Your task to perform on an android device: Empty the shopping cart on ebay.com. Search for razer deathadder on ebay.com, select the first entry, add it to the cart, then select checkout. Image 0: 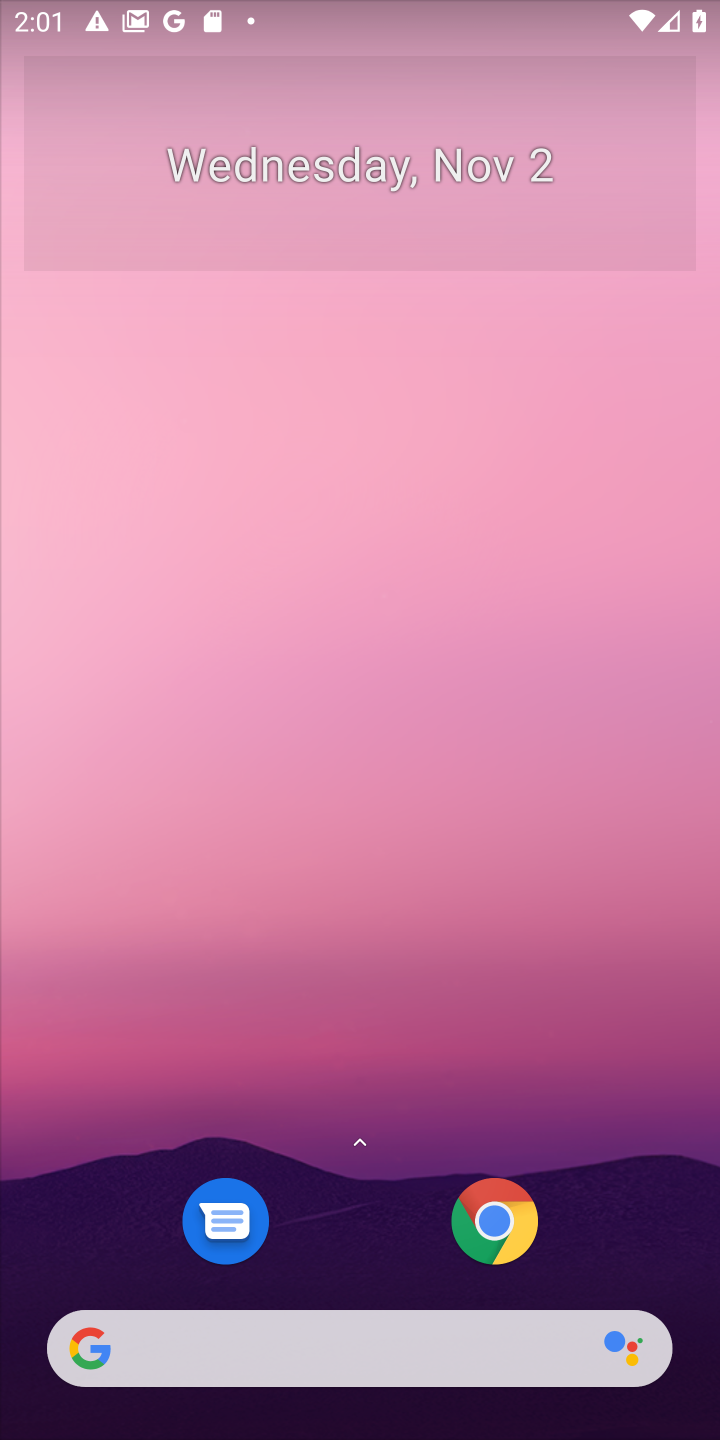
Step 0: click (309, 1355)
Your task to perform on an android device: Empty the shopping cart on ebay.com. Search for razer deathadder on ebay.com, select the first entry, add it to the cart, then select checkout. Image 1: 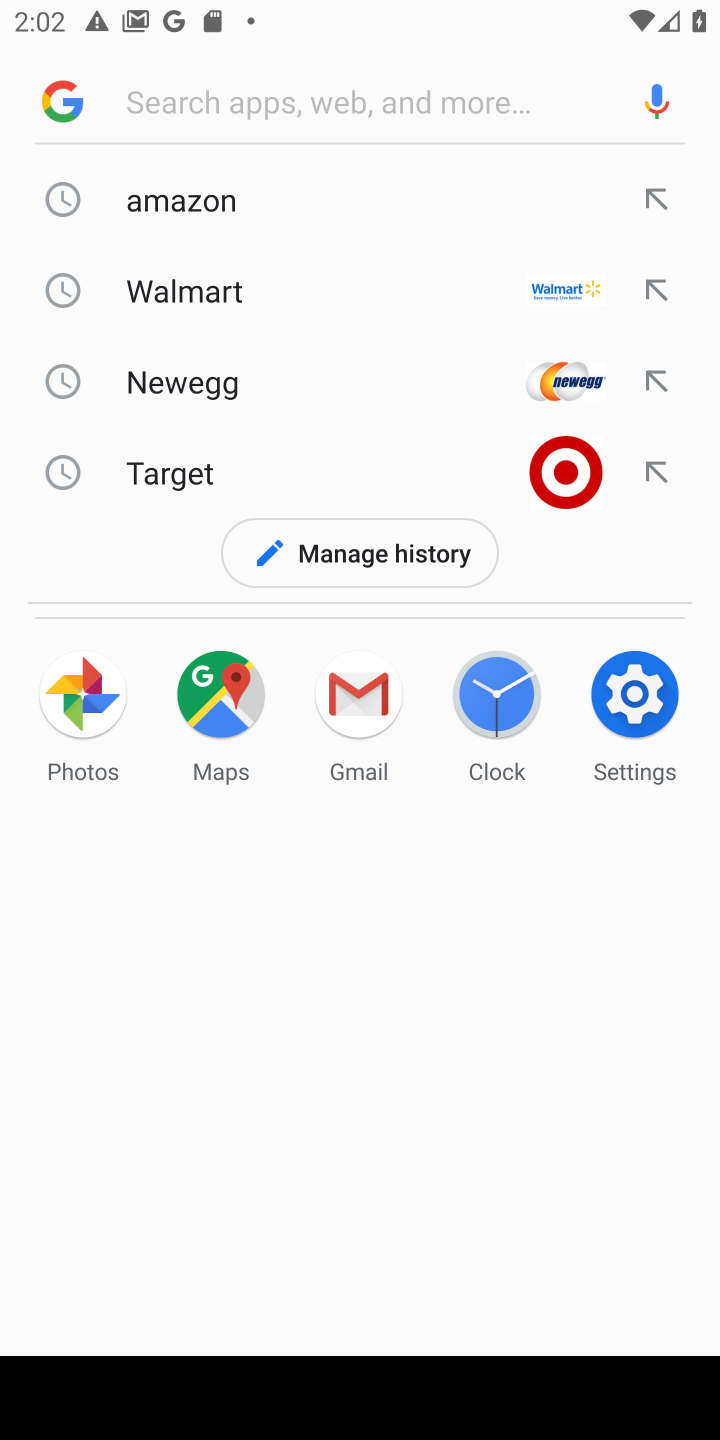
Step 1: type "ebay.com"
Your task to perform on an android device: Empty the shopping cart on ebay.com. Search for razer deathadder on ebay.com, select the first entry, add it to the cart, then select checkout. Image 2: 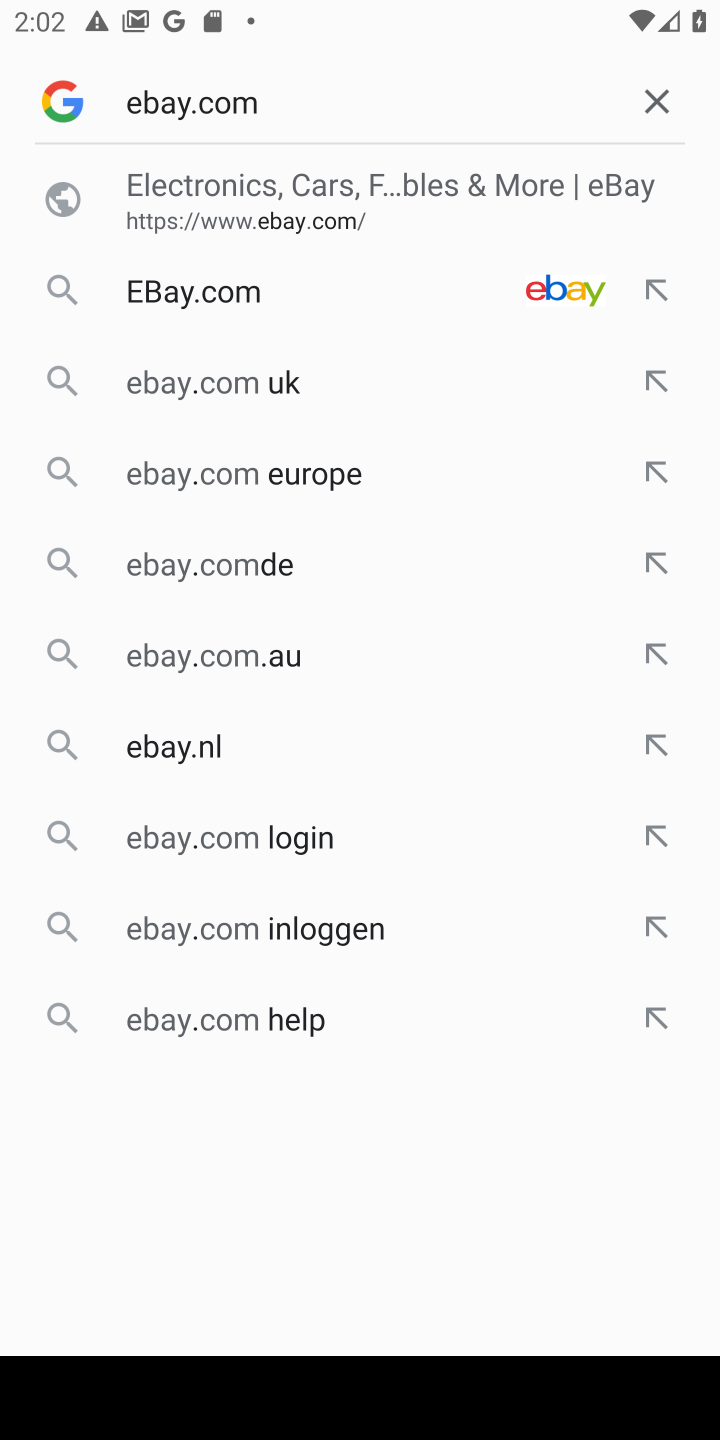
Step 2: click (361, 219)
Your task to perform on an android device: Empty the shopping cart on ebay.com. Search for razer deathadder on ebay.com, select the first entry, add it to the cart, then select checkout. Image 3: 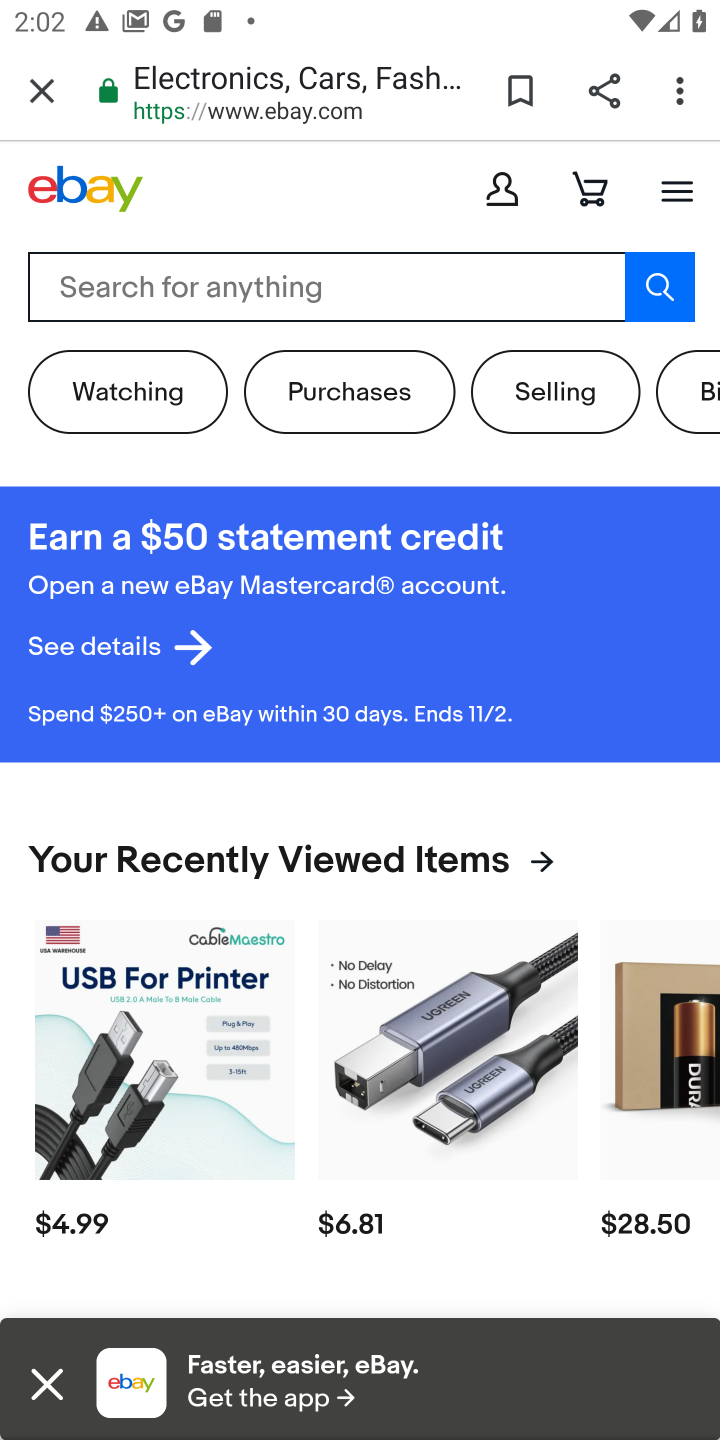
Step 3: click (197, 1088)
Your task to perform on an android device: Empty the shopping cart on ebay.com. Search for razer deathadder on ebay.com, select the first entry, add it to the cart, then select checkout. Image 4: 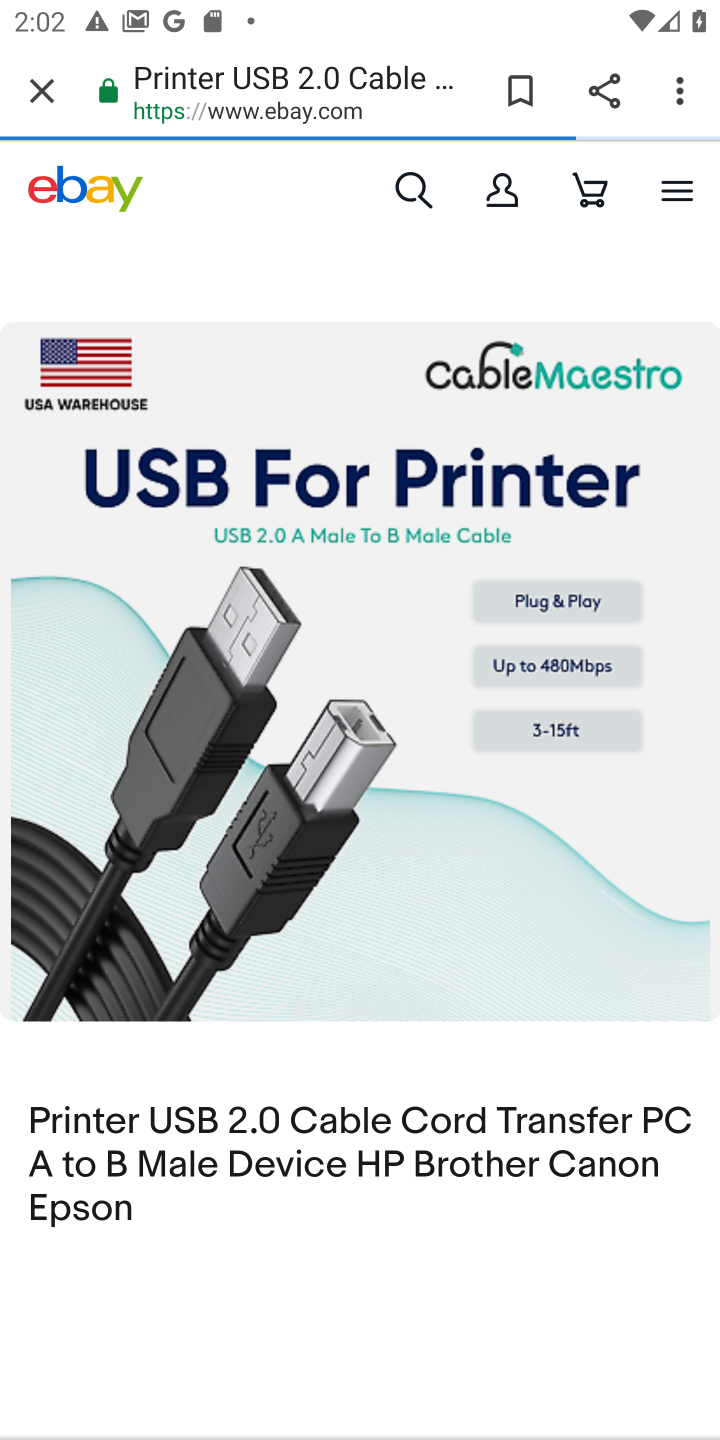
Step 4: task complete